Your task to perform on an android device: turn off airplane mode Image 0: 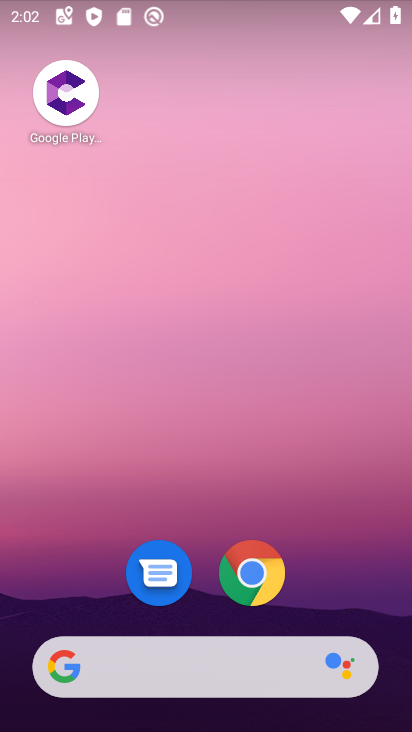
Step 0: drag from (348, 584) to (389, 30)
Your task to perform on an android device: turn off airplane mode Image 1: 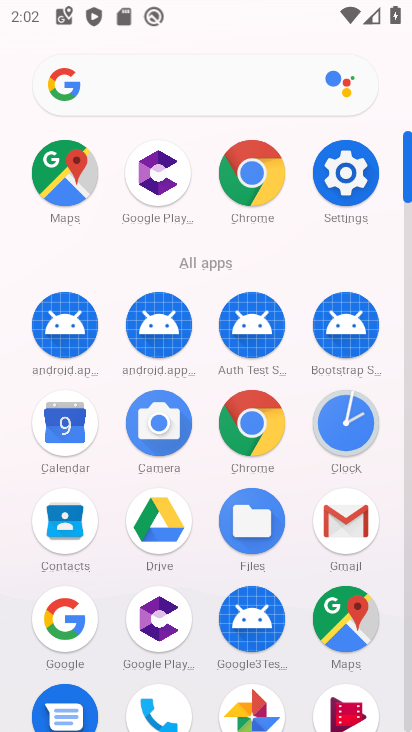
Step 1: click (347, 186)
Your task to perform on an android device: turn off airplane mode Image 2: 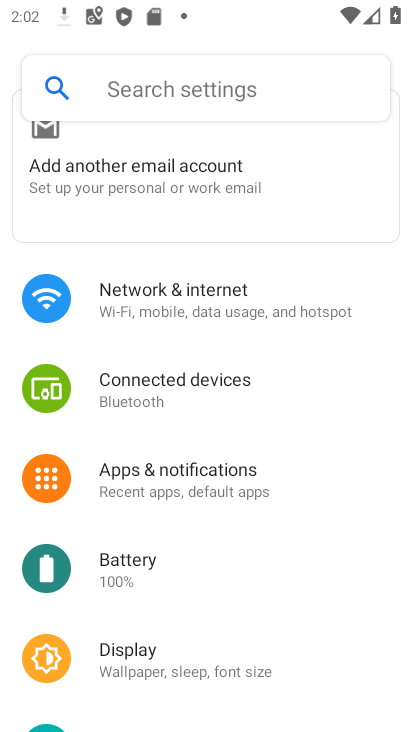
Step 2: click (188, 296)
Your task to perform on an android device: turn off airplane mode Image 3: 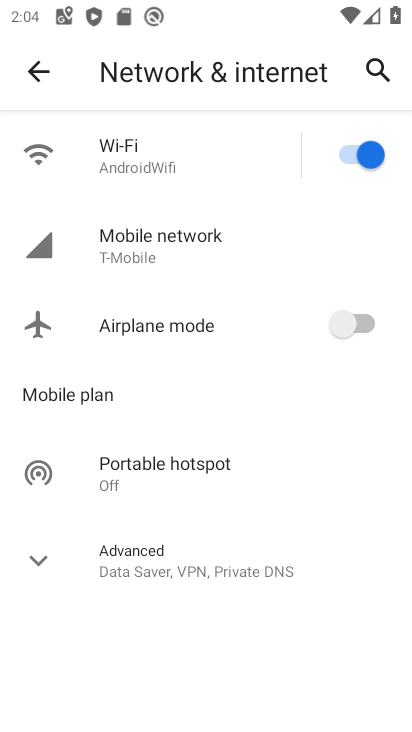
Step 3: task complete